Your task to perform on an android device: Empty the shopping cart on ebay. Search for "acer nitro" on ebay, select the first entry, add it to the cart, then select checkout. Image 0: 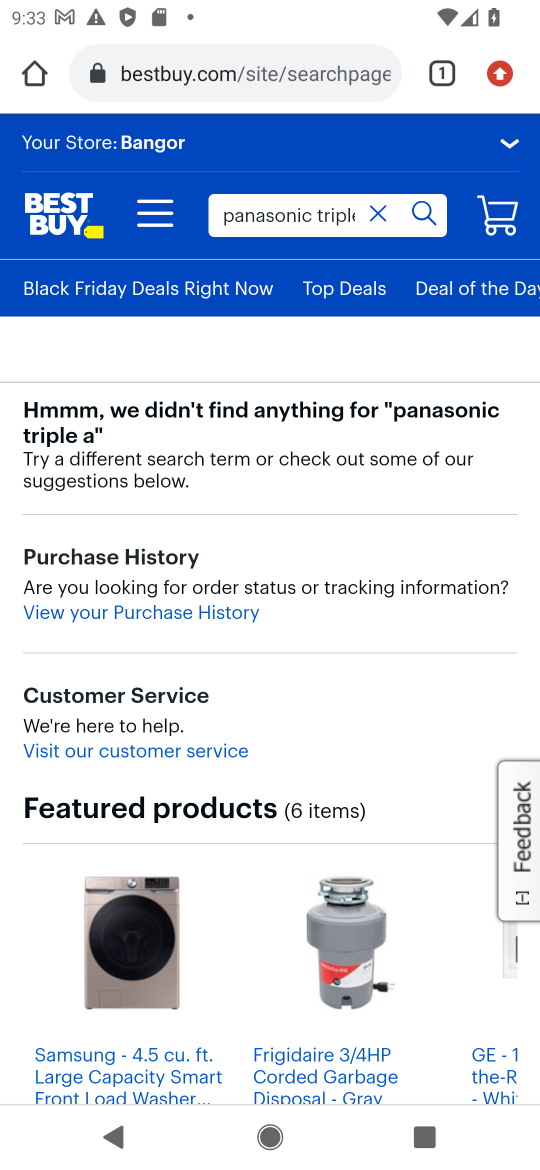
Step 0: click (196, 71)
Your task to perform on an android device: Empty the shopping cart on ebay. Search for "acer nitro" on ebay, select the first entry, add it to the cart, then select checkout. Image 1: 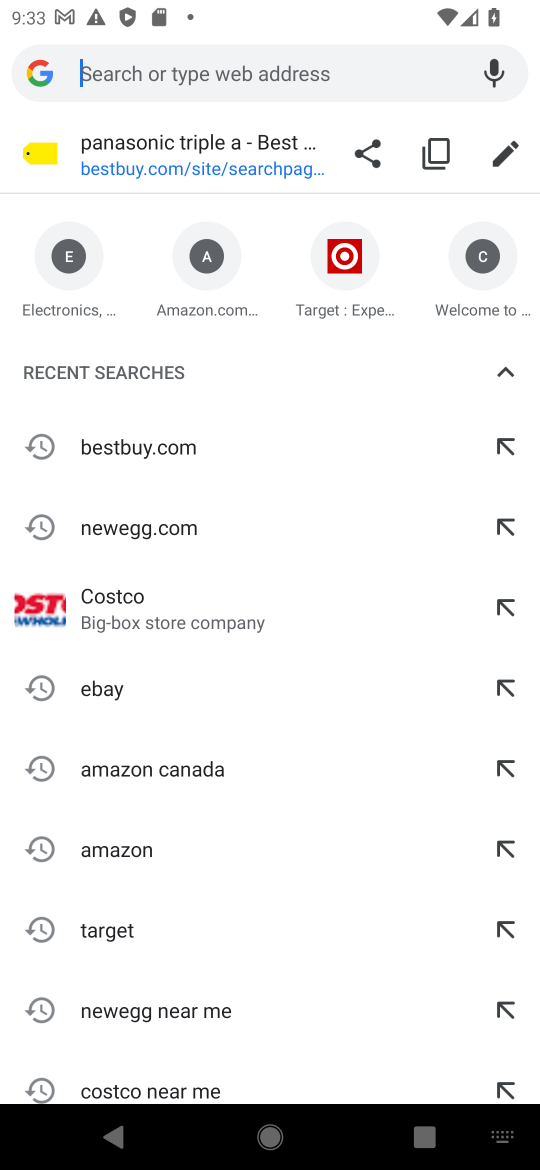
Step 1: type "ebay.com"
Your task to perform on an android device: Empty the shopping cart on ebay. Search for "acer nitro" on ebay, select the first entry, add it to the cart, then select checkout. Image 2: 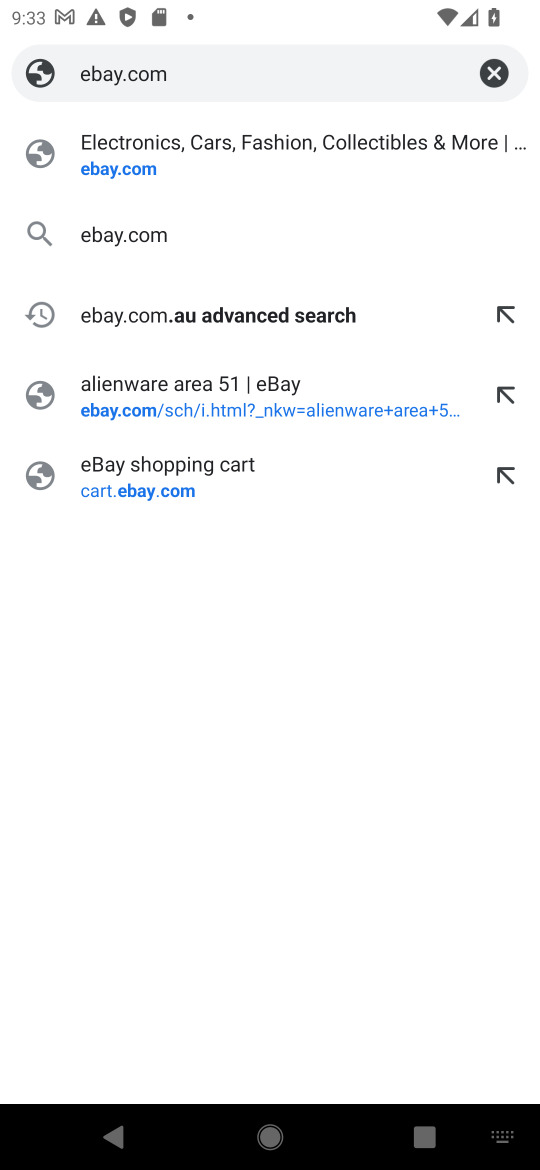
Step 2: click (131, 176)
Your task to perform on an android device: Empty the shopping cart on ebay. Search for "acer nitro" on ebay, select the first entry, add it to the cart, then select checkout. Image 3: 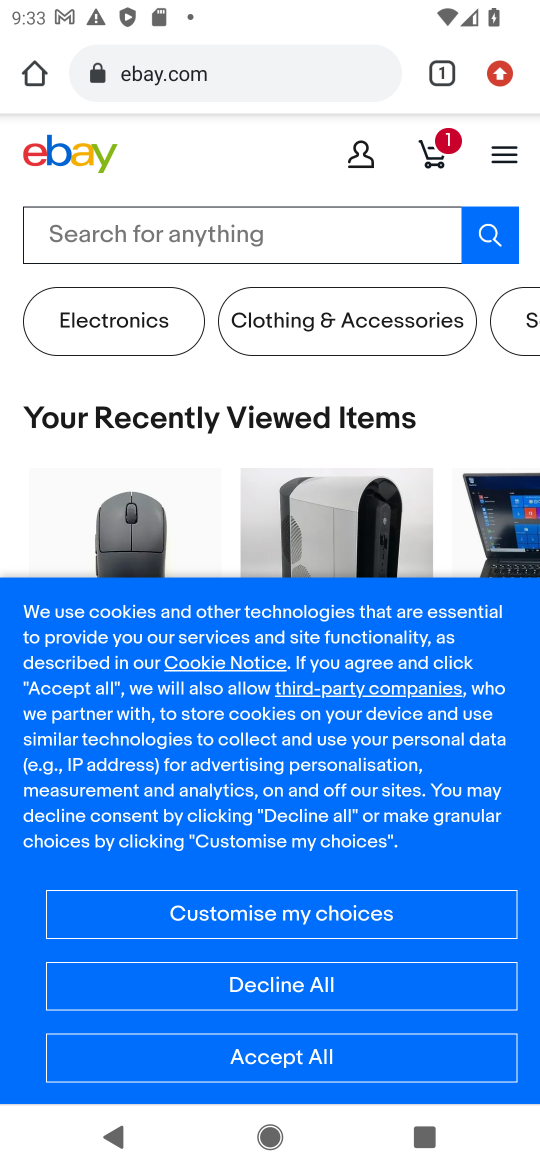
Step 3: click (439, 159)
Your task to perform on an android device: Empty the shopping cart on ebay. Search for "acer nitro" on ebay, select the first entry, add it to the cart, then select checkout. Image 4: 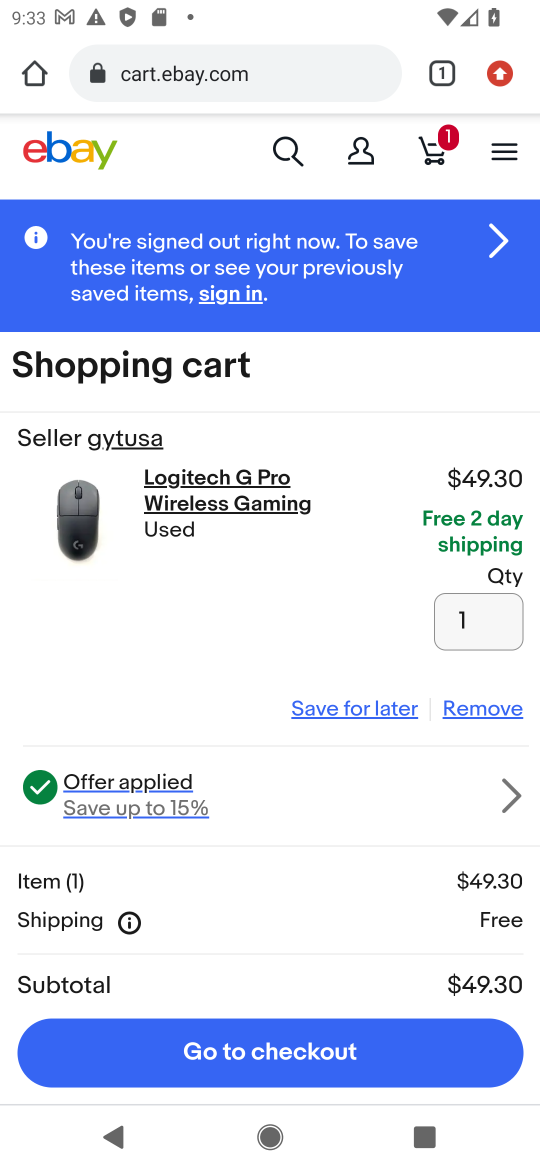
Step 4: click (476, 710)
Your task to perform on an android device: Empty the shopping cart on ebay. Search for "acer nitro" on ebay, select the first entry, add it to the cart, then select checkout. Image 5: 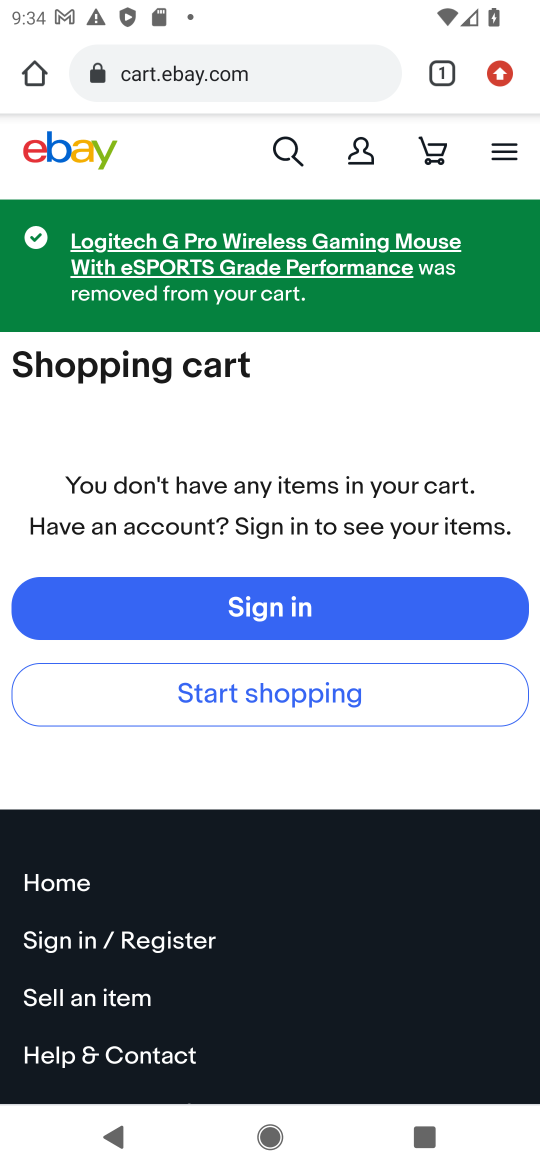
Step 5: click (283, 152)
Your task to perform on an android device: Empty the shopping cart on ebay. Search for "acer nitro" on ebay, select the first entry, add it to the cart, then select checkout. Image 6: 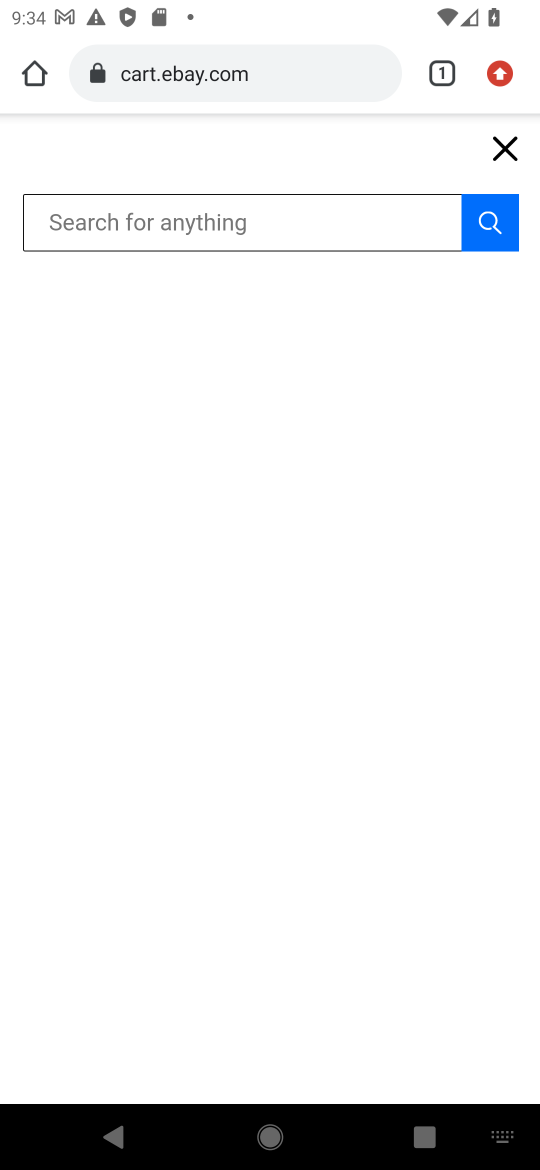
Step 6: type "acer nitro"
Your task to perform on an android device: Empty the shopping cart on ebay. Search for "acer nitro" on ebay, select the first entry, add it to the cart, then select checkout. Image 7: 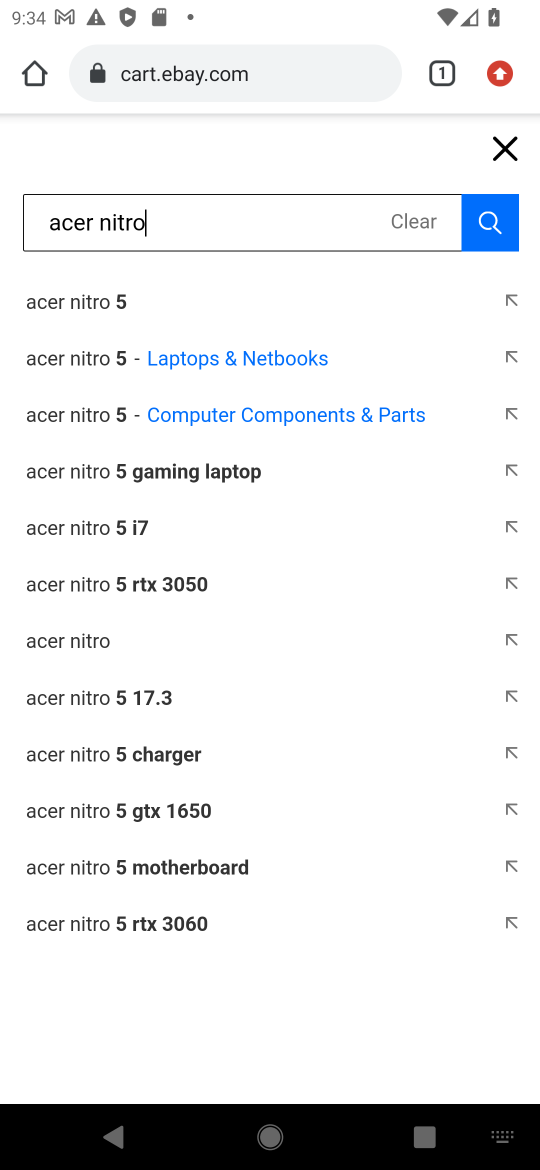
Step 7: click (104, 641)
Your task to perform on an android device: Empty the shopping cart on ebay. Search for "acer nitro" on ebay, select the first entry, add it to the cart, then select checkout. Image 8: 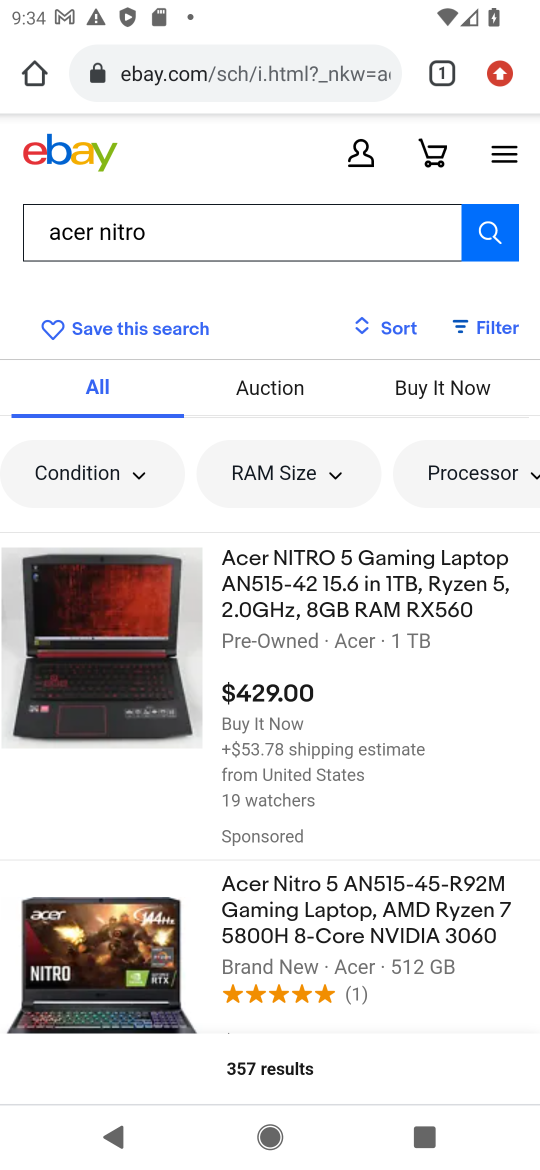
Step 8: click (140, 642)
Your task to perform on an android device: Empty the shopping cart on ebay. Search for "acer nitro" on ebay, select the first entry, add it to the cart, then select checkout. Image 9: 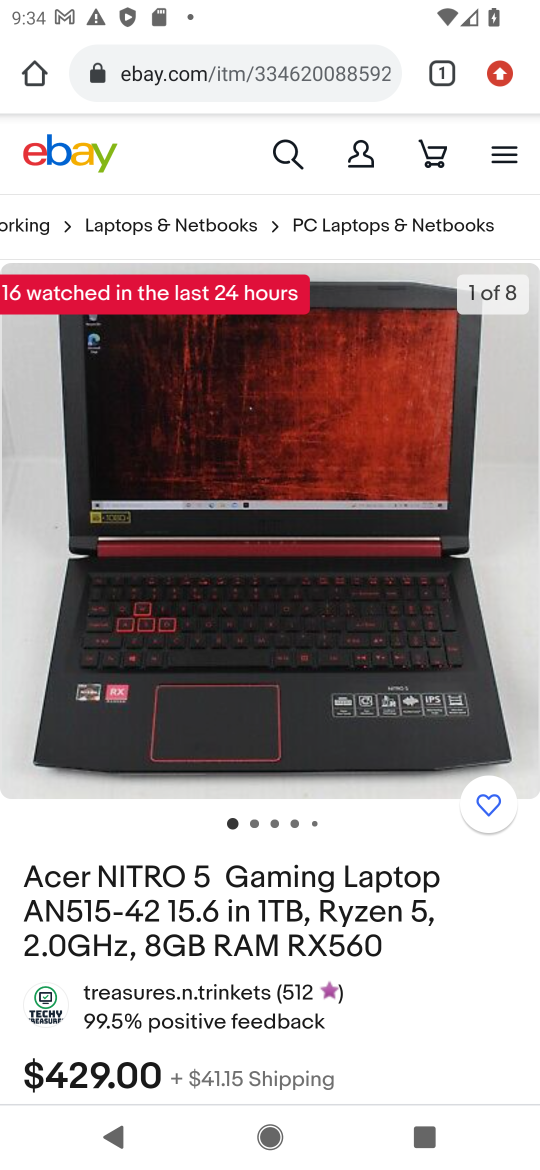
Step 9: drag from (273, 823) to (274, 282)
Your task to perform on an android device: Empty the shopping cart on ebay. Search for "acer nitro" on ebay, select the first entry, add it to the cart, then select checkout. Image 10: 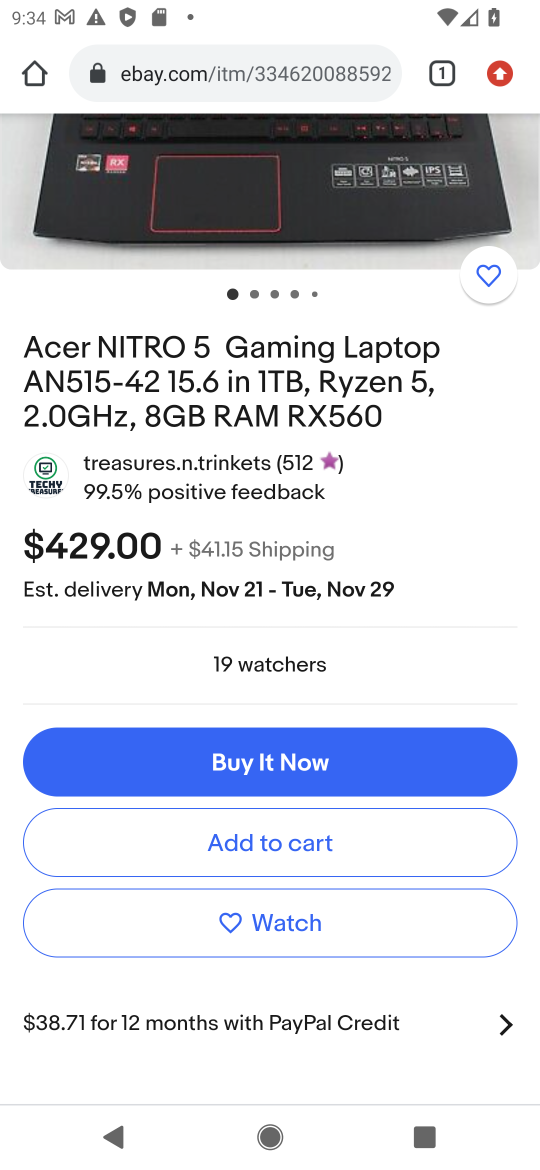
Step 10: click (218, 828)
Your task to perform on an android device: Empty the shopping cart on ebay. Search for "acer nitro" on ebay, select the first entry, add it to the cart, then select checkout. Image 11: 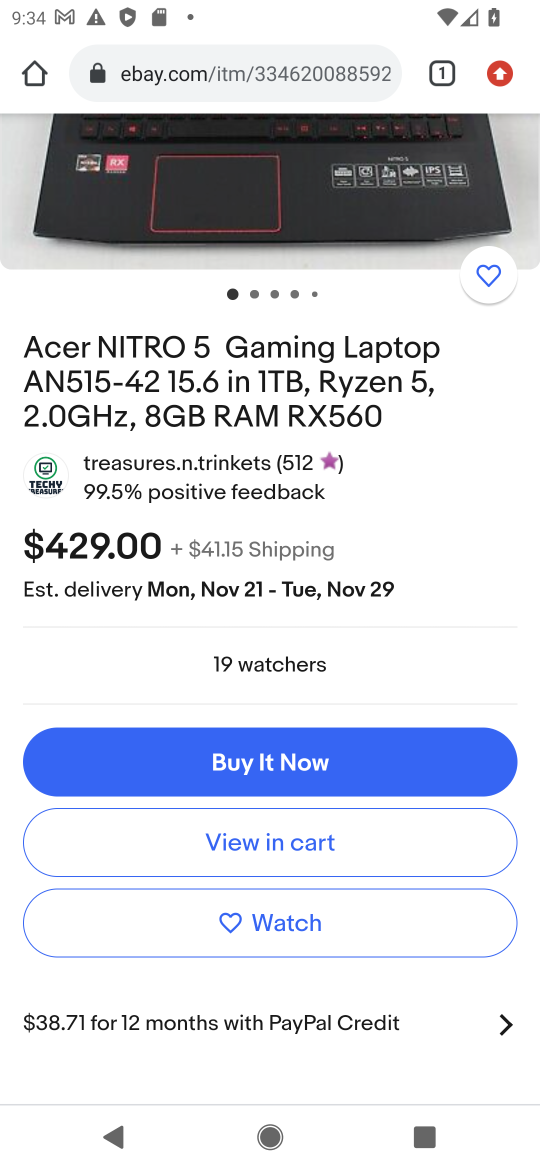
Step 11: click (219, 839)
Your task to perform on an android device: Empty the shopping cart on ebay. Search for "acer nitro" on ebay, select the first entry, add it to the cart, then select checkout. Image 12: 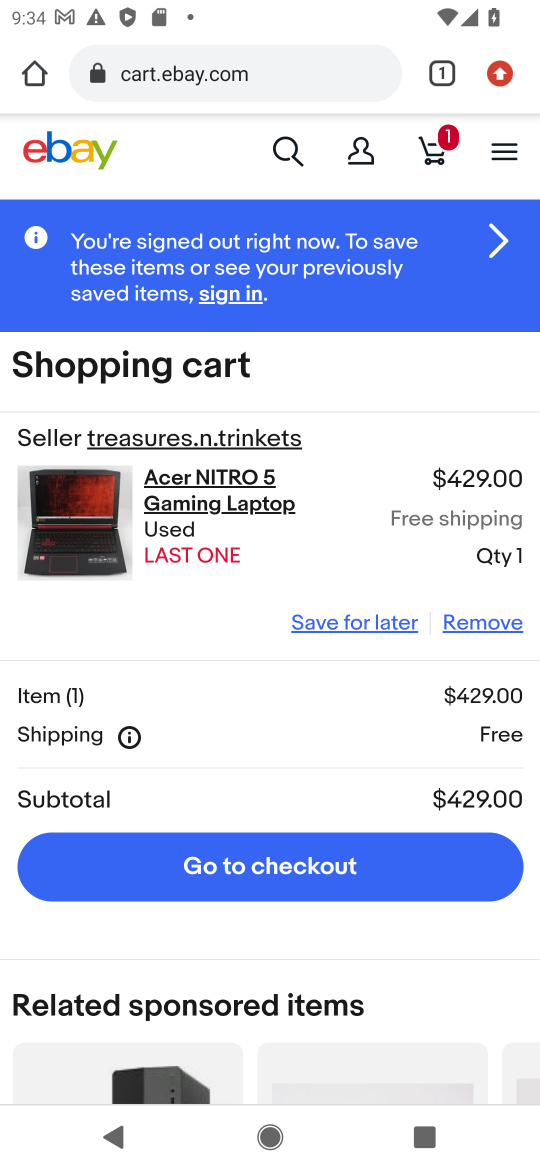
Step 12: click (226, 873)
Your task to perform on an android device: Empty the shopping cart on ebay. Search for "acer nitro" on ebay, select the first entry, add it to the cart, then select checkout. Image 13: 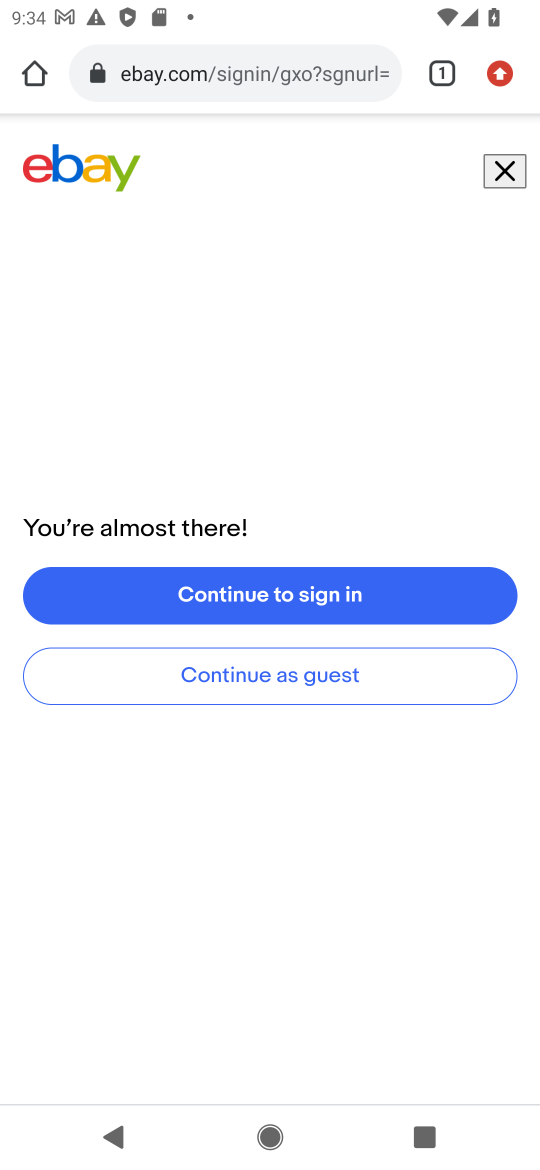
Step 13: task complete